Your task to perform on an android device: change notifications settings Image 0: 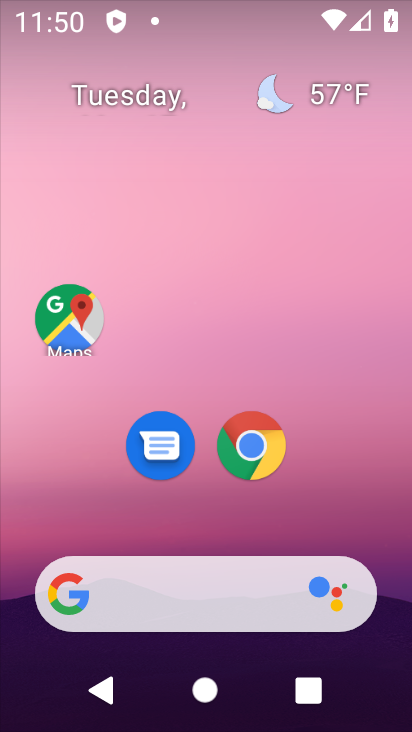
Step 0: drag from (387, 318) to (380, 162)
Your task to perform on an android device: change notifications settings Image 1: 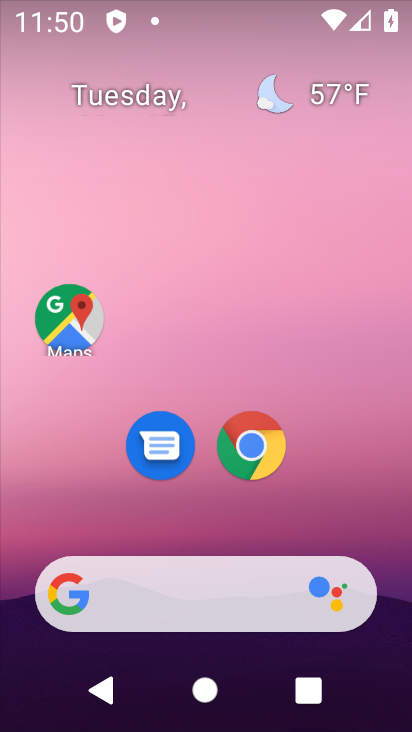
Step 1: drag from (329, 509) to (306, 129)
Your task to perform on an android device: change notifications settings Image 2: 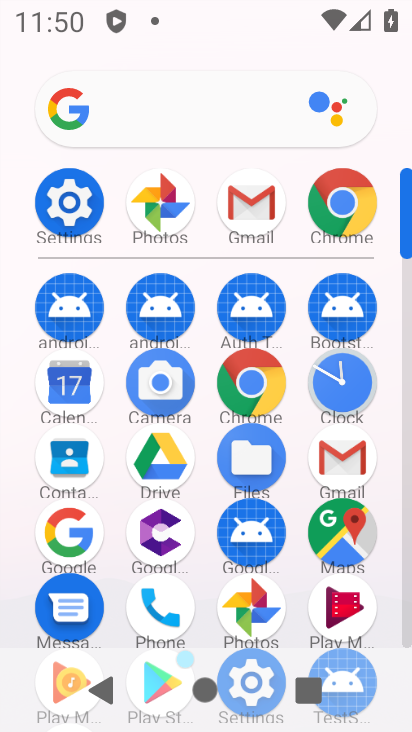
Step 2: click (76, 222)
Your task to perform on an android device: change notifications settings Image 3: 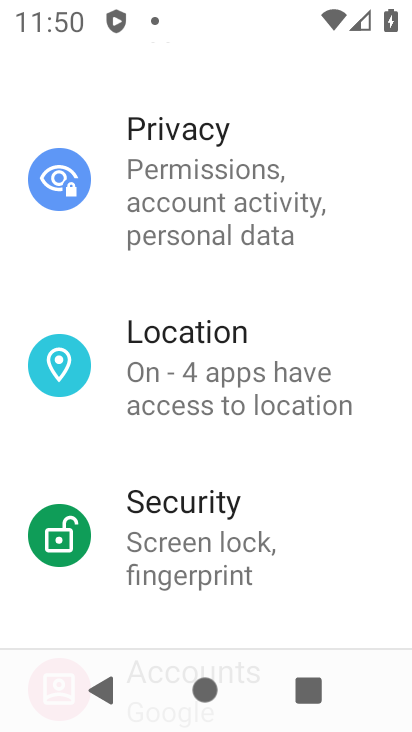
Step 3: drag from (363, 251) to (364, 388)
Your task to perform on an android device: change notifications settings Image 4: 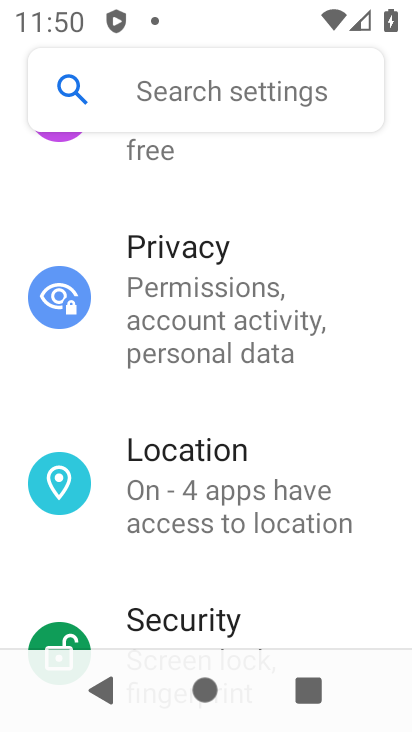
Step 4: drag from (371, 239) to (372, 386)
Your task to perform on an android device: change notifications settings Image 5: 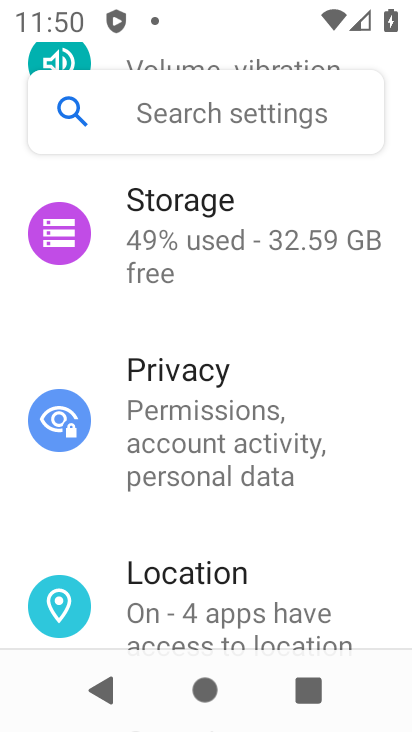
Step 5: drag from (372, 263) to (361, 426)
Your task to perform on an android device: change notifications settings Image 6: 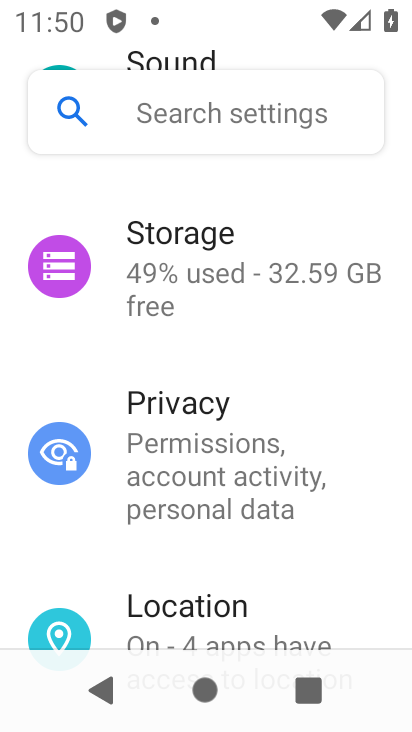
Step 6: drag from (361, 234) to (297, 598)
Your task to perform on an android device: change notifications settings Image 7: 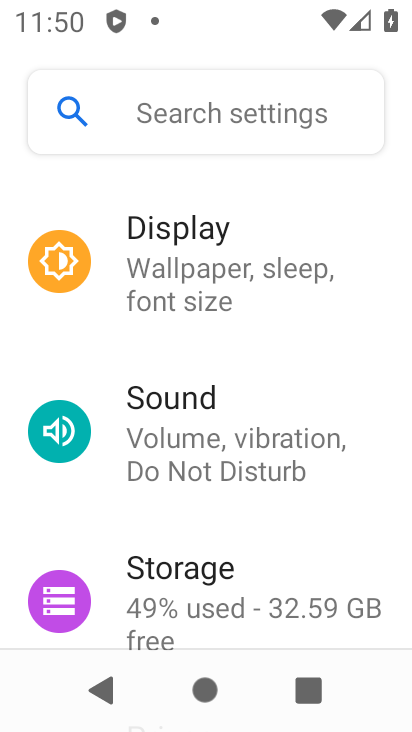
Step 7: drag from (356, 280) to (359, 401)
Your task to perform on an android device: change notifications settings Image 8: 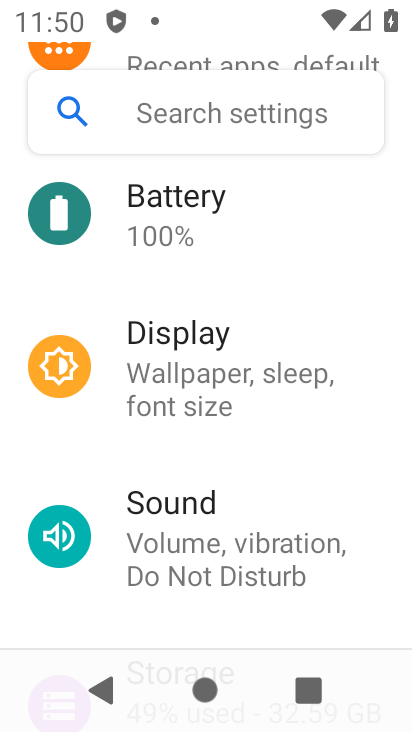
Step 8: drag from (364, 228) to (356, 412)
Your task to perform on an android device: change notifications settings Image 9: 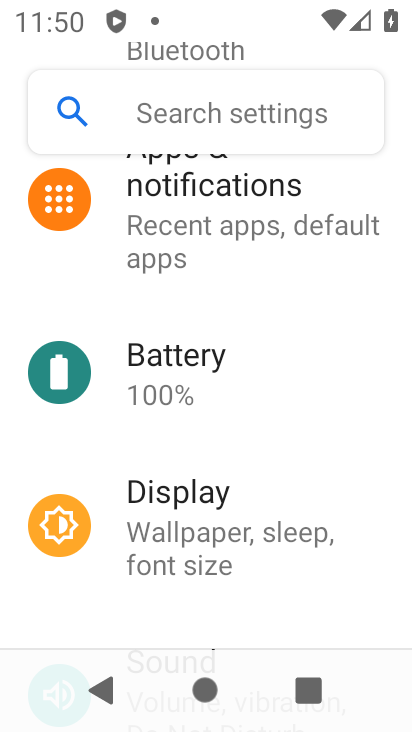
Step 9: drag from (342, 270) to (323, 430)
Your task to perform on an android device: change notifications settings Image 10: 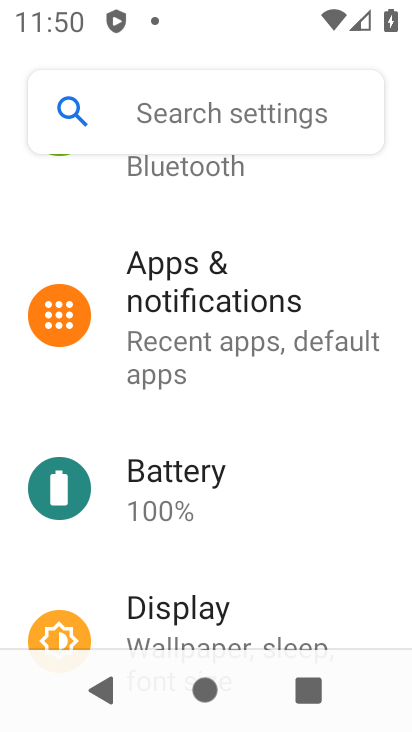
Step 10: drag from (357, 255) to (334, 422)
Your task to perform on an android device: change notifications settings Image 11: 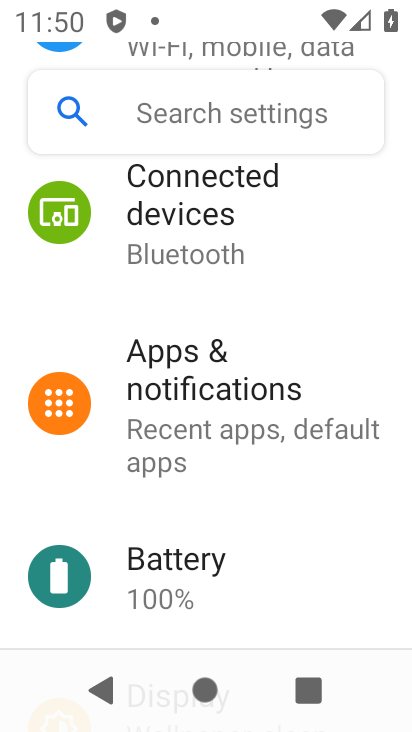
Step 11: drag from (315, 231) to (312, 373)
Your task to perform on an android device: change notifications settings Image 12: 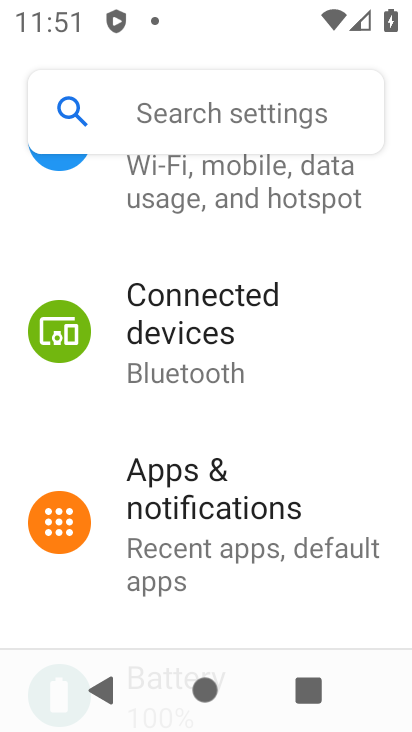
Step 12: drag from (328, 238) to (327, 364)
Your task to perform on an android device: change notifications settings Image 13: 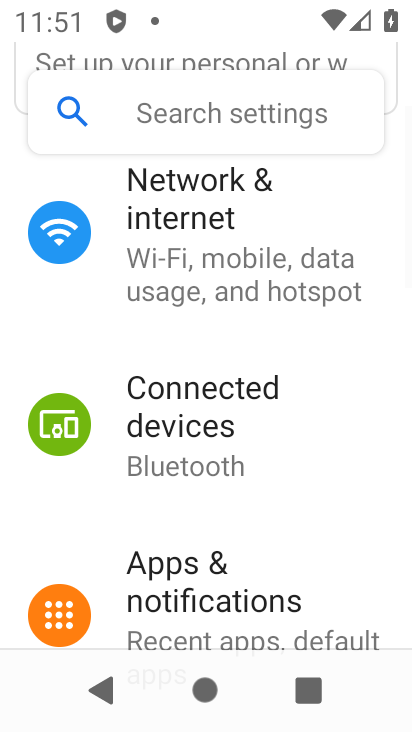
Step 13: drag from (356, 187) to (344, 376)
Your task to perform on an android device: change notifications settings Image 14: 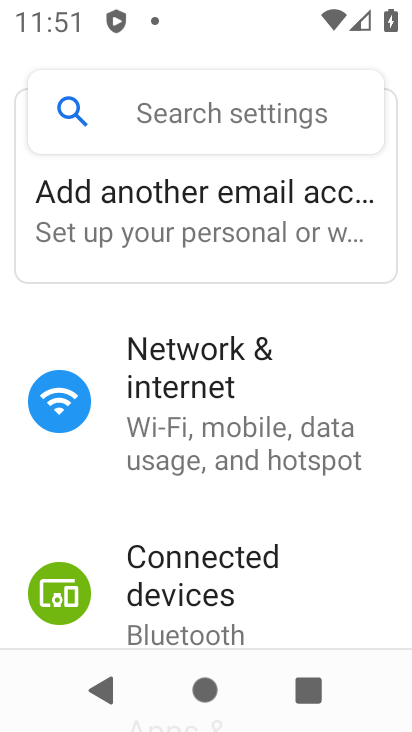
Step 14: drag from (357, 259) to (356, 384)
Your task to perform on an android device: change notifications settings Image 15: 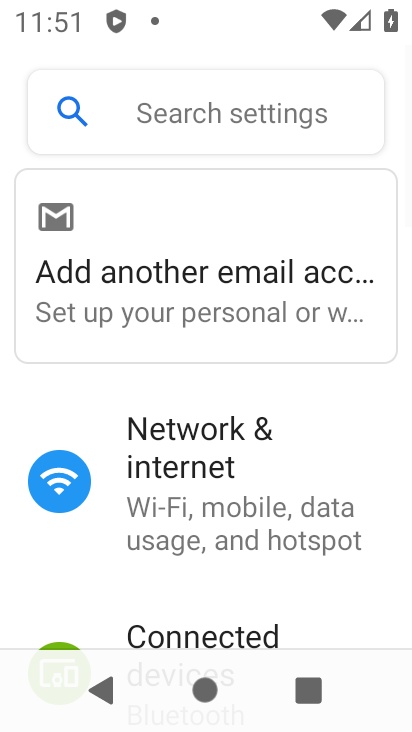
Step 15: drag from (330, 427) to (342, 236)
Your task to perform on an android device: change notifications settings Image 16: 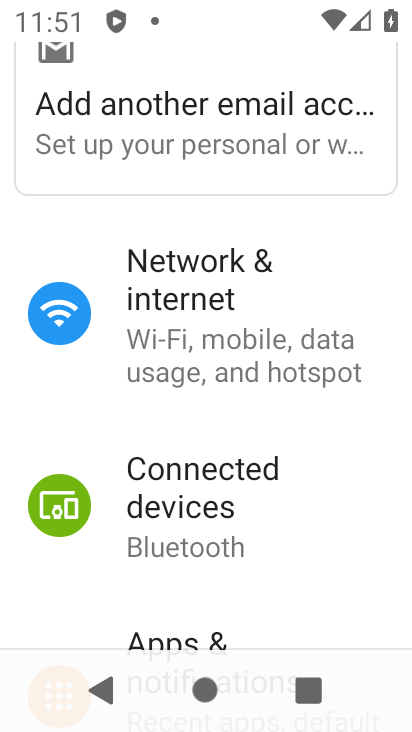
Step 16: drag from (319, 415) to (347, 272)
Your task to perform on an android device: change notifications settings Image 17: 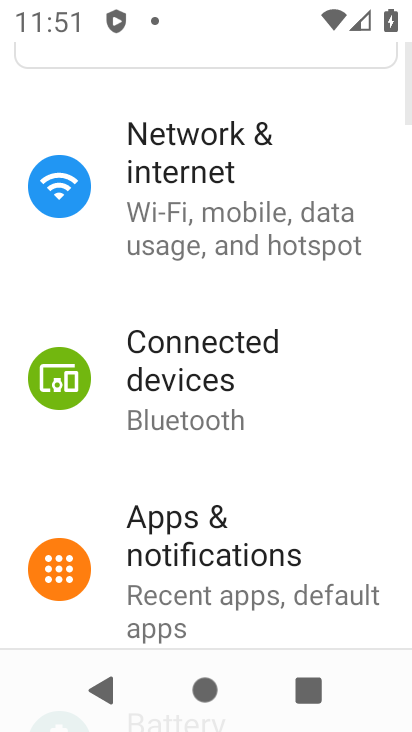
Step 17: drag from (345, 460) to (369, 346)
Your task to perform on an android device: change notifications settings Image 18: 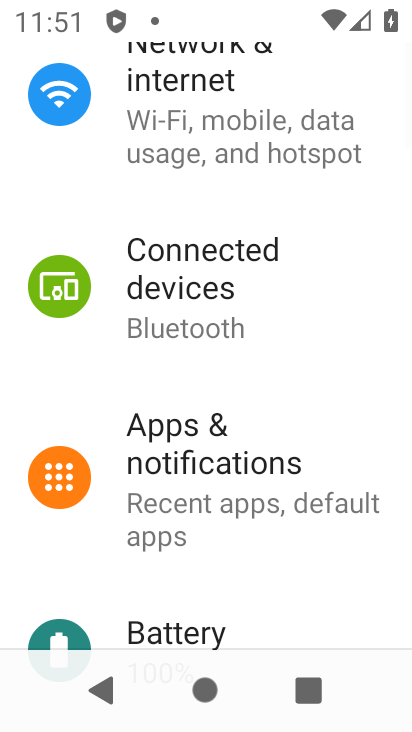
Step 18: drag from (337, 534) to (364, 375)
Your task to perform on an android device: change notifications settings Image 19: 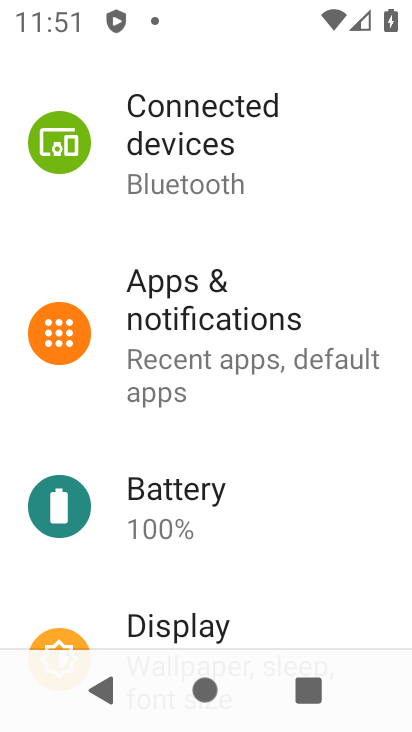
Step 19: drag from (348, 521) to (339, 375)
Your task to perform on an android device: change notifications settings Image 20: 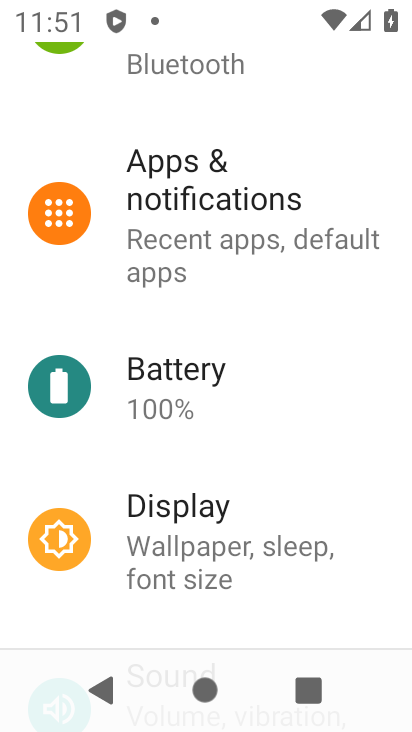
Step 20: drag from (325, 569) to (325, 415)
Your task to perform on an android device: change notifications settings Image 21: 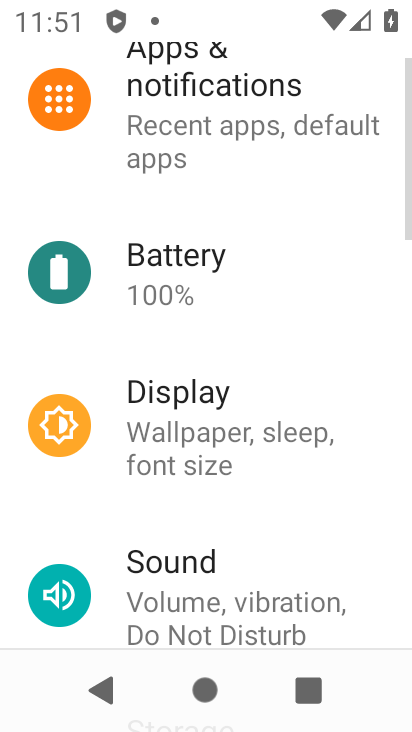
Step 21: drag from (314, 540) to (314, 406)
Your task to perform on an android device: change notifications settings Image 22: 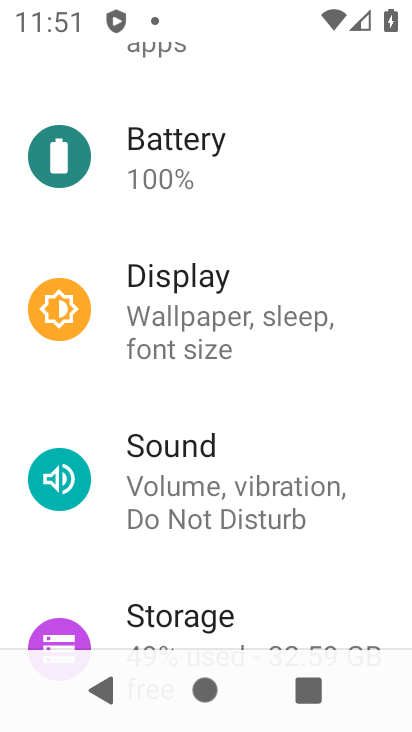
Step 22: drag from (340, 572) to (318, 398)
Your task to perform on an android device: change notifications settings Image 23: 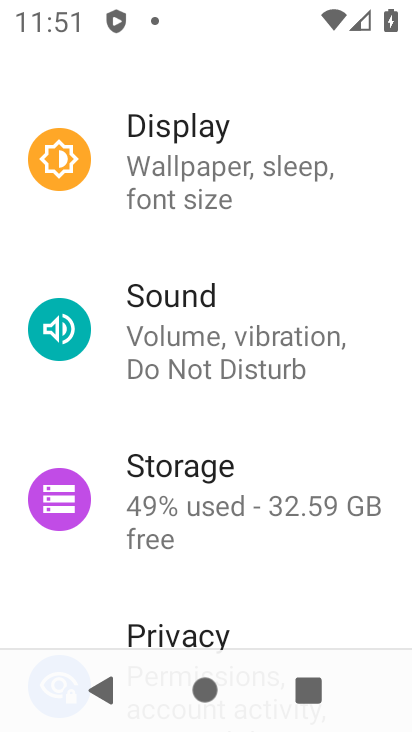
Step 23: drag from (312, 583) to (339, 396)
Your task to perform on an android device: change notifications settings Image 24: 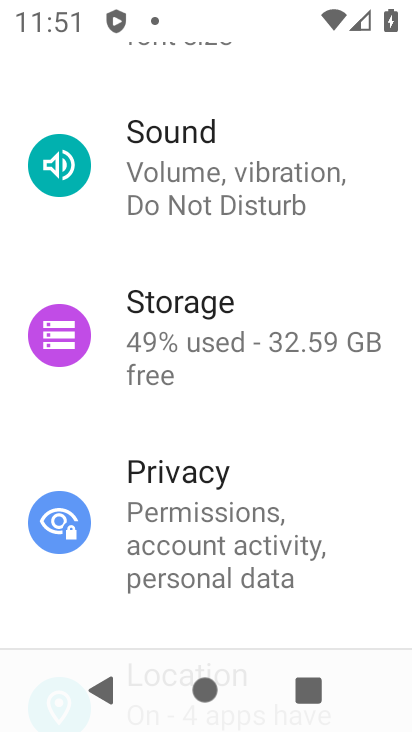
Step 24: drag from (337, 581) to (338, 421)
Your task to perform on an android device: change notifications settings Image 25: 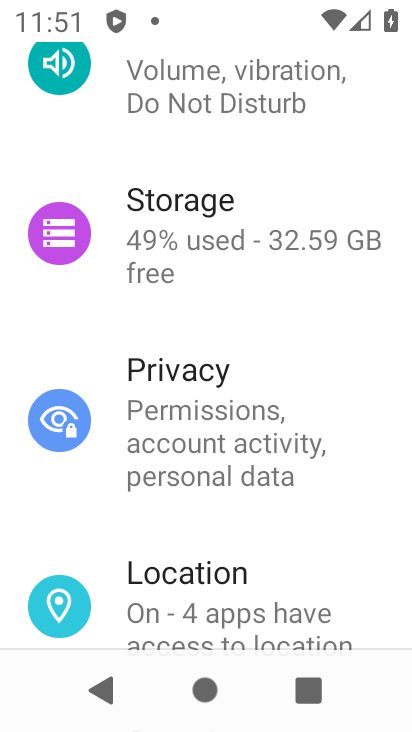
Step 25: drag from (327, 544) to (333, 432)
Your task to perform on an android device: change notifications settings Image 26: 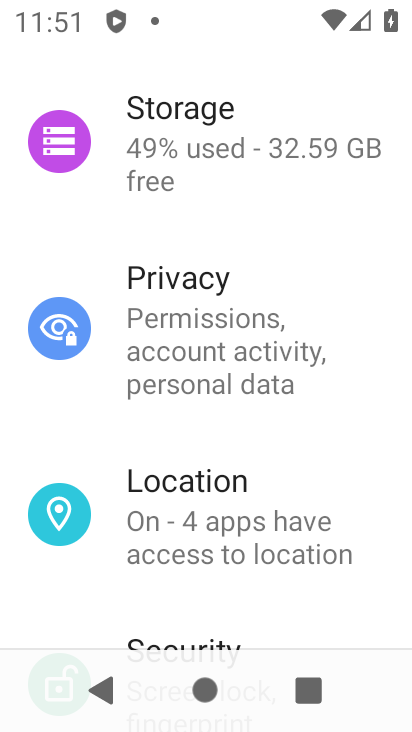
Step 26: drag from (343, 594) to (351, 523)
Your task to perform on an android device: change notifications settings Image 27: 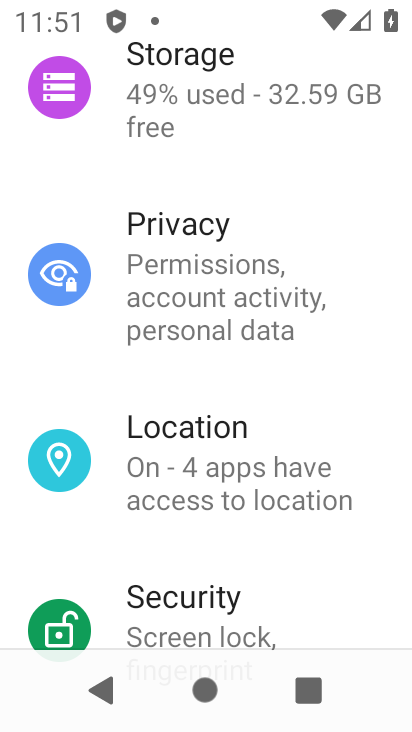
Step 27: drag from (363, 594) to (389, 380)
Your task to perform on an android device: change notifications settings Image 28: 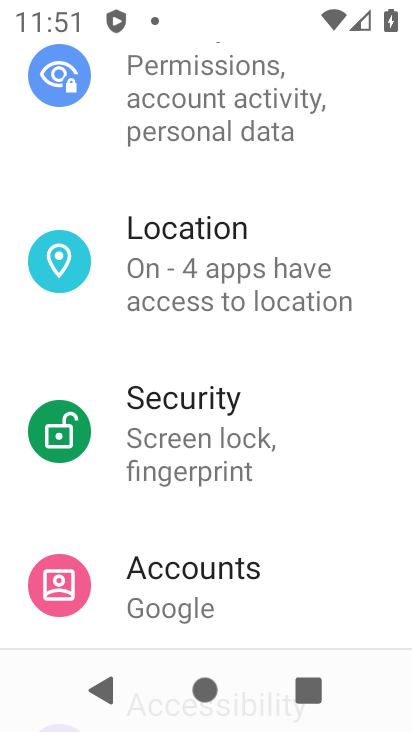
Step 28: drag from (341, 557) to (330, 408)
Your task to perform on an android device: change notifications settings Image 29: 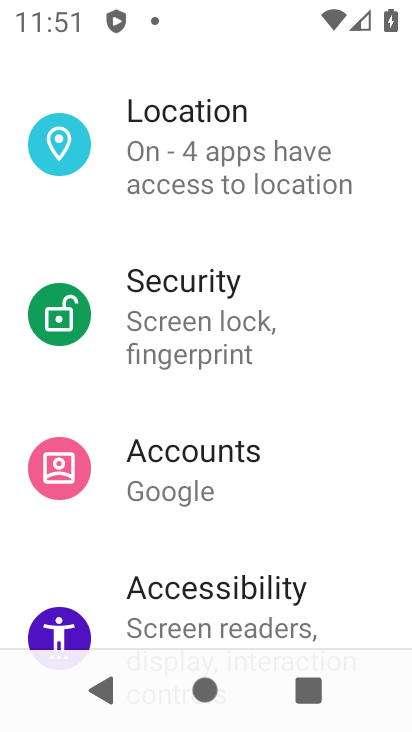
Step 29: drag from (336, 356) to (342, 536)
Your task to perform on an android device: change notifications settings Image 30: 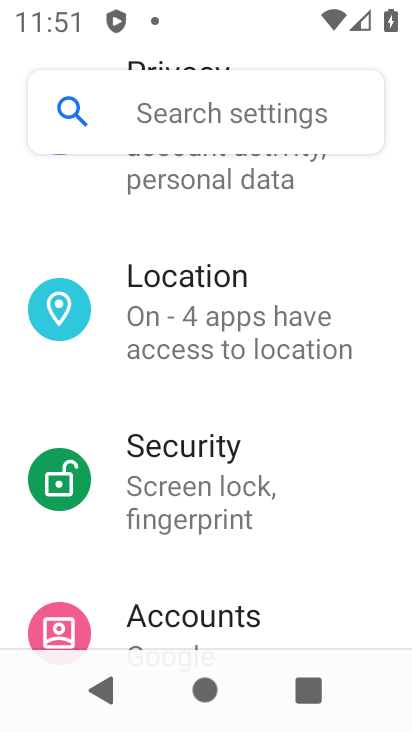
Step 30: drag from (351, 291) to (358, 547)
Your task to perform on an android device: change notifications settings Image 31: 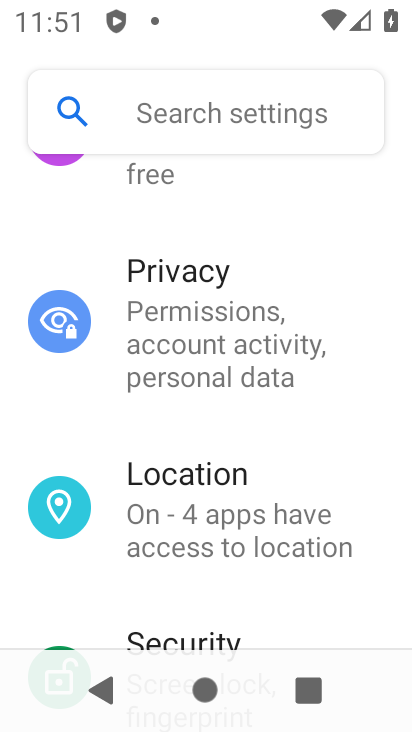
Step 31: drag from (372, 310) to (383, 403)
Your task to perform on an android device: change notifications settings Image 32: 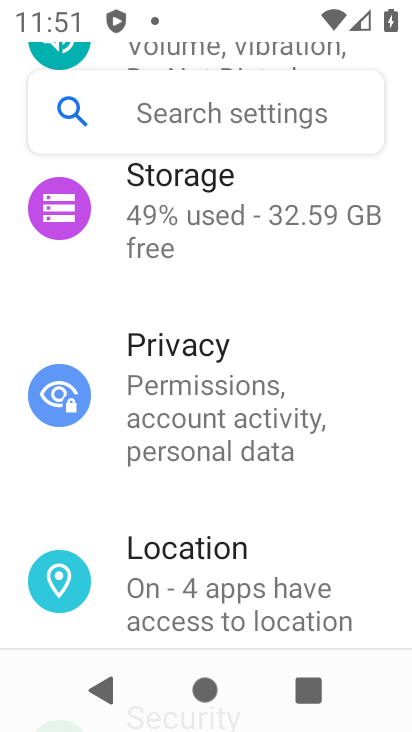
Step 32: drag from (299, 319) to (308, 534)
Your task to perform on an android device: change notifications settings Image 33: 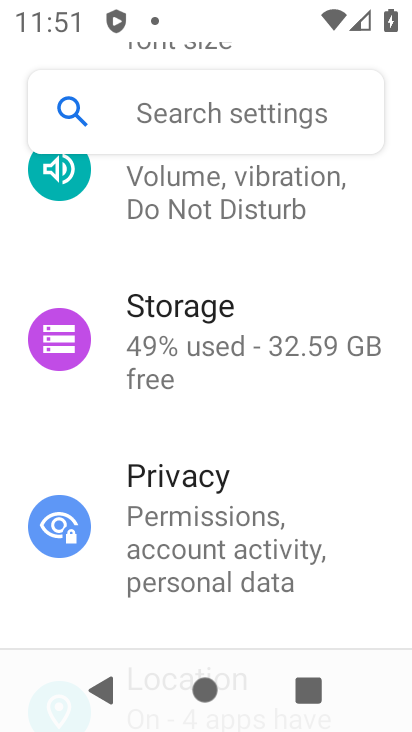
Step 33: drag from (359, 279) to (346, 463)
Your task to perform on an android device: change notifications settings Image 34: 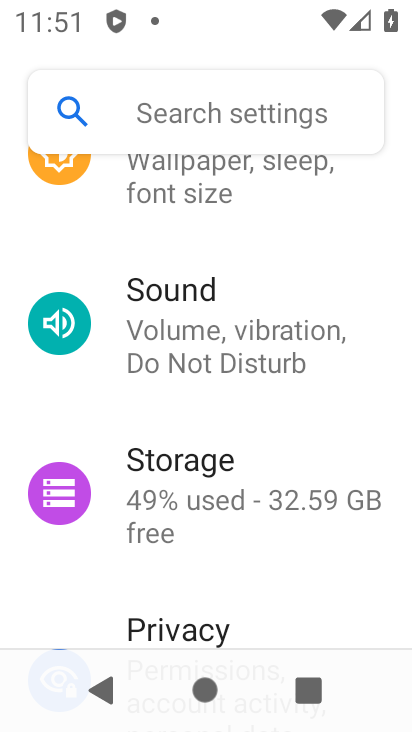
Step 34: drag from (372, 307) to (354, 476)
Your task to perform on an android device: change notifications settings Image 35: 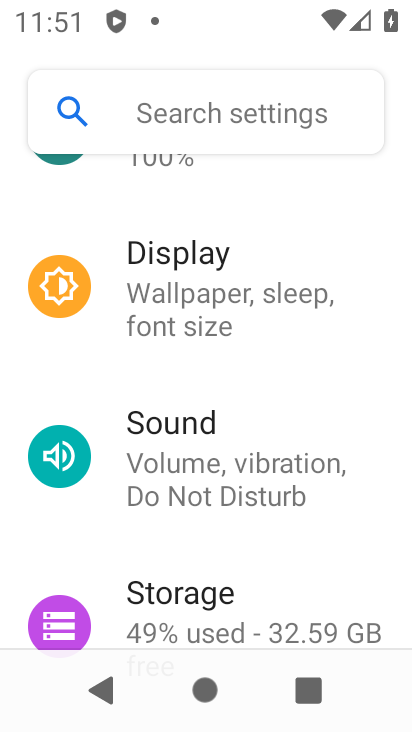
Step 35: drag from (350, 331) to (342, 496)
Your task to perform on an android device: change notifications settings Image 36: 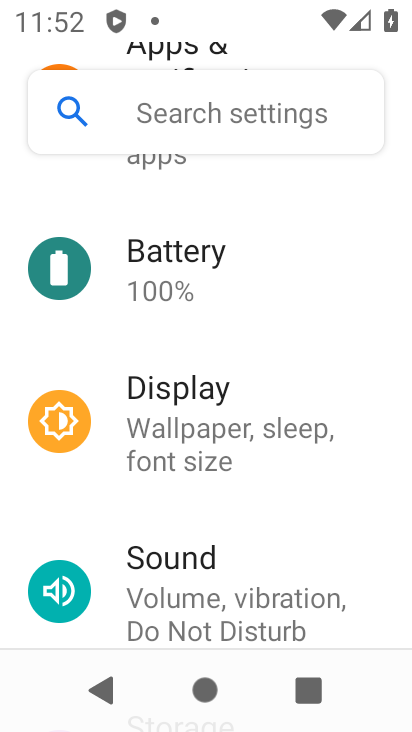
Step 36: drag from (334, 301) to (322, 491)
Your task to perform on an android device: change notifications settings Image 37: 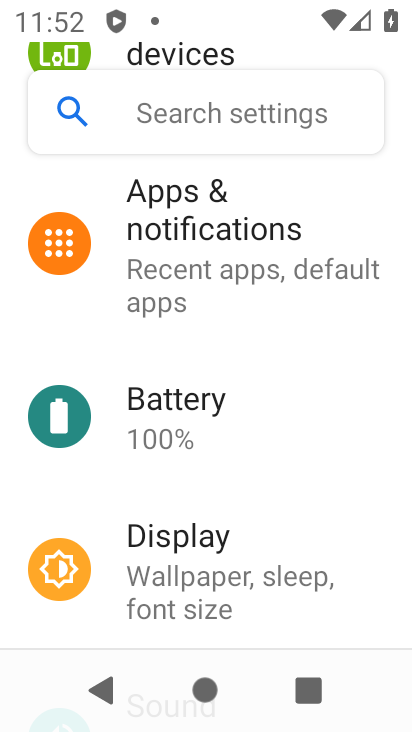
Step 37: drag from (330, 312) to (331, 423)
Your task to perform on an android device: change notifications settings Image 38: 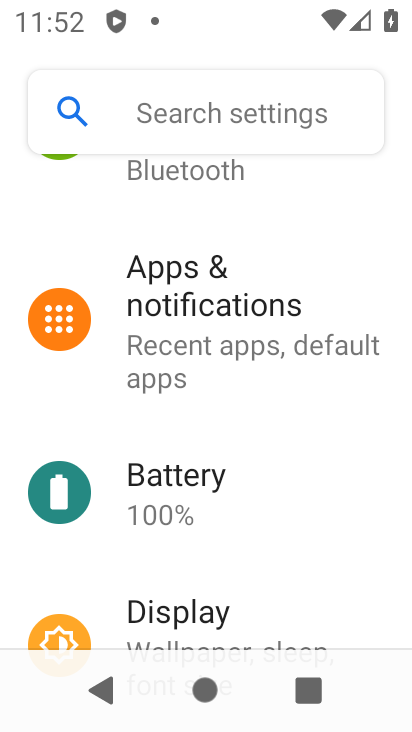
Step 38: drag from (354, 286) to (336, 568)
Your task to perform on an android device: change notifications settings Image 39: 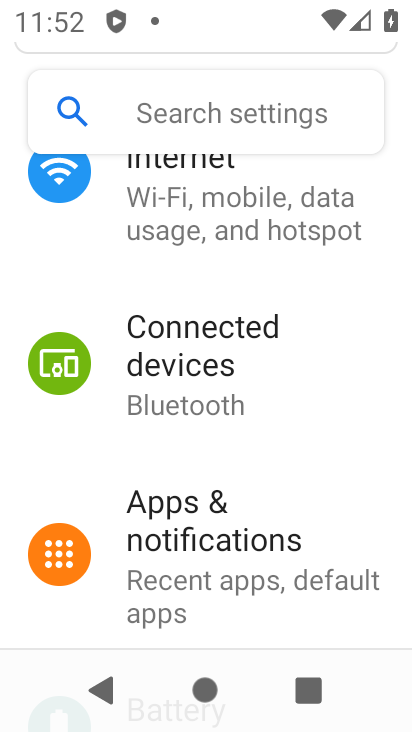
Step 39: click (282, 544)
Your task to perform on an android device: change notifications settings Image 40: 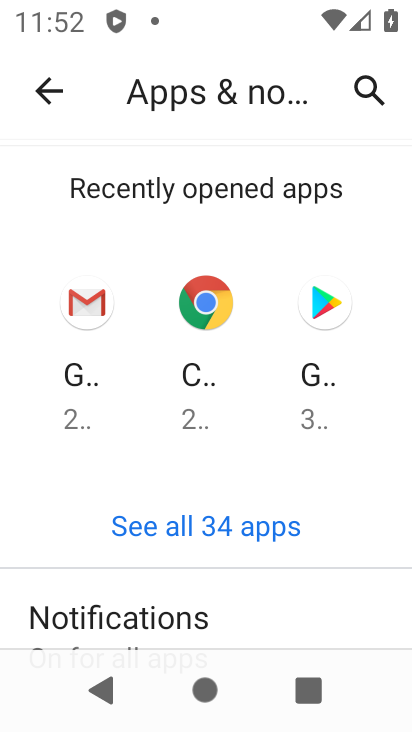
Step 40: drag from (305, 588) to (312, 265)
Your task to perform on an android device: change notifications settings Image 41: 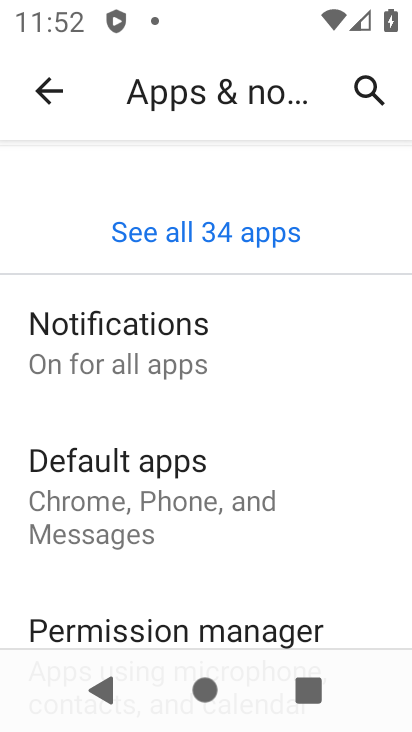
Step 41: click (146, 360)
Your task to perform on an android device: change notifications settings Image 42: 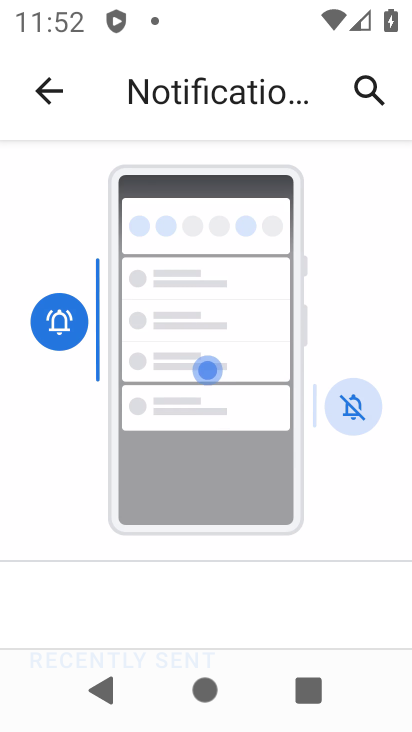
Step 42: task complete